Your task to perform on an android device: open app "Facebook Messenger" (install if not already installed) Image 0: 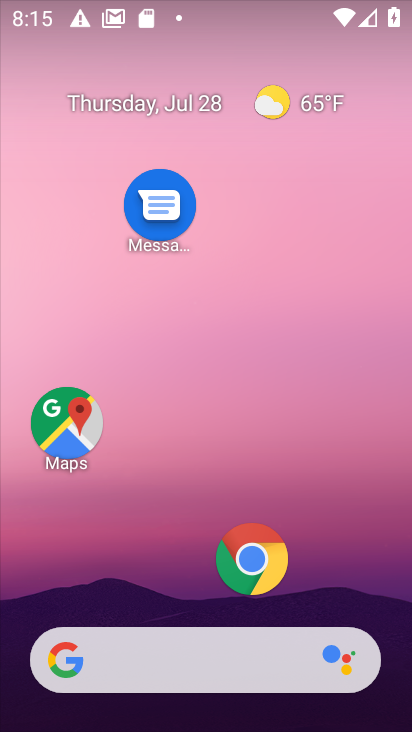
Step 0: drag from (162, 510) to (150, 280)
Your task to perform on an android device: open app "Facebook Messenger" (install if not already installed) Image 1: 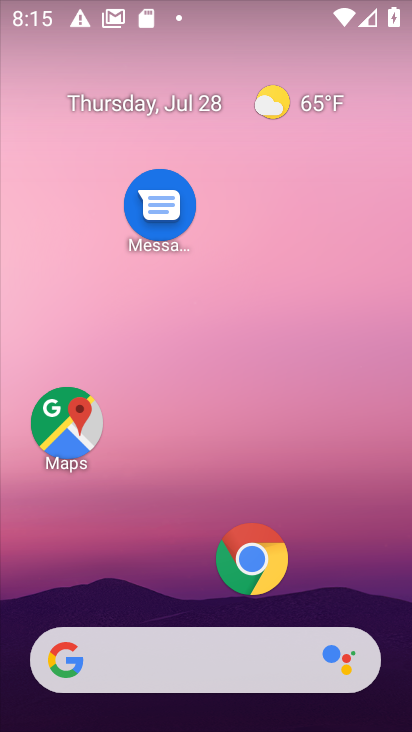
Step 1: drag from (161, 594) to (176, 178)
Your task to perform on an android device: open app "Facebook Messenger" (install if not already installed) Image 2: 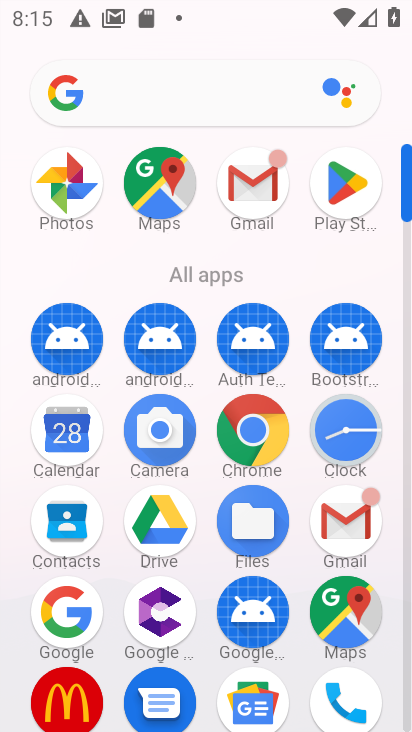
Step 2: drag from (193, 643) to (222, 343)
Your task to perform on an android device: open app "Facebook Messenger" (install if not already installed) Image 3: 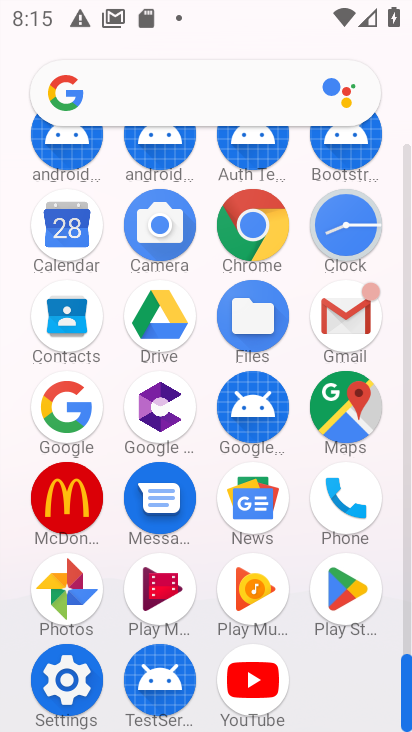
Step 3: click (340, 586)
Your task to perform on an android device: open app "Facebook Messenger" (install if not already installed) Image 4: 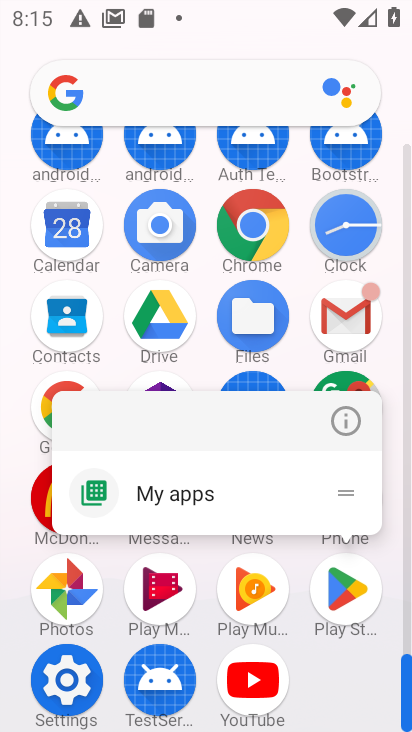
Step 4: click (342, 409)
Your task to perform on an android device: open app "Facebook Messenger" (install if not already installed) Image 5: 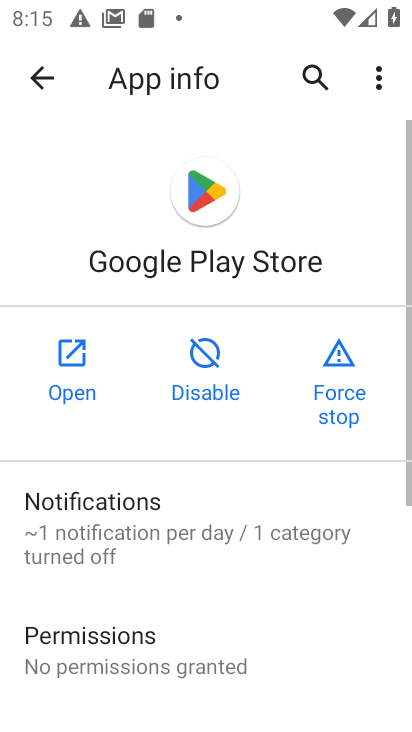
Step 5: click (70, 350)
Your task to perform on an android device: open app "Facebook Messenger" (install if not already installed) Image 6: 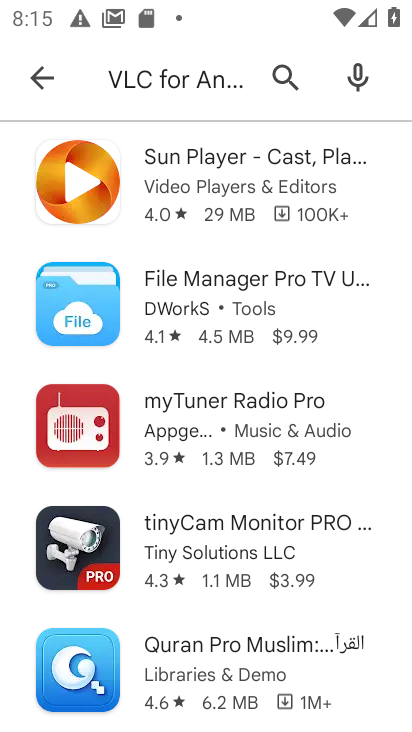
Step 6: click (285, 78)
Your task to perform on an android device: open app "Facebook Messenger" (install if not already installed) Image 7: 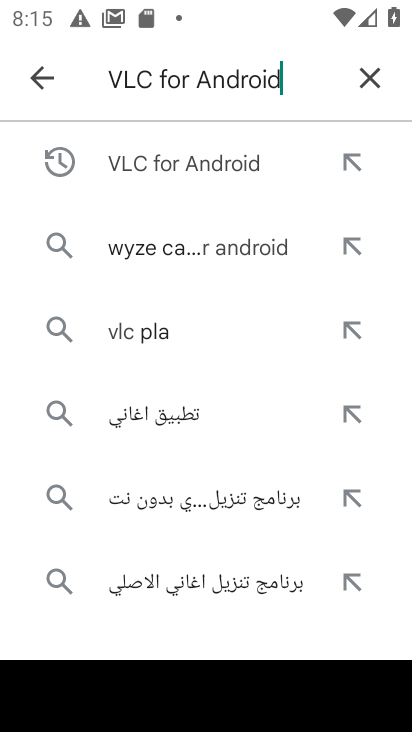
Step 7: click (375, 78)
Your task to perform on an android device: open app "Facebook Messenger" (install if not already installed) Image 8: 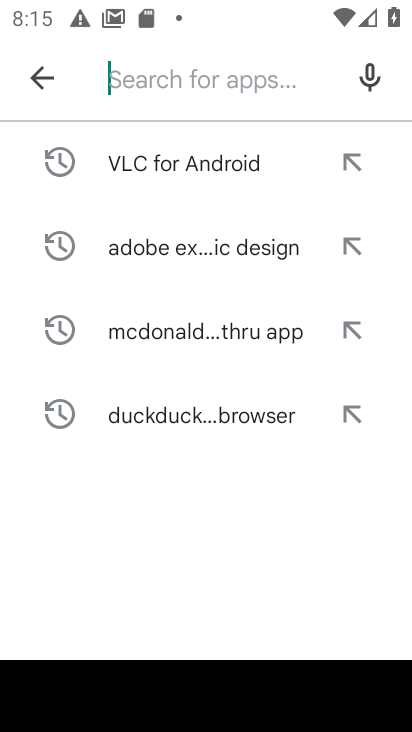
Step 8: type "Facebook Messenger"
Your task to perform on an android device: open app "Facebook Messenger" (install if not already installed) Image 9: 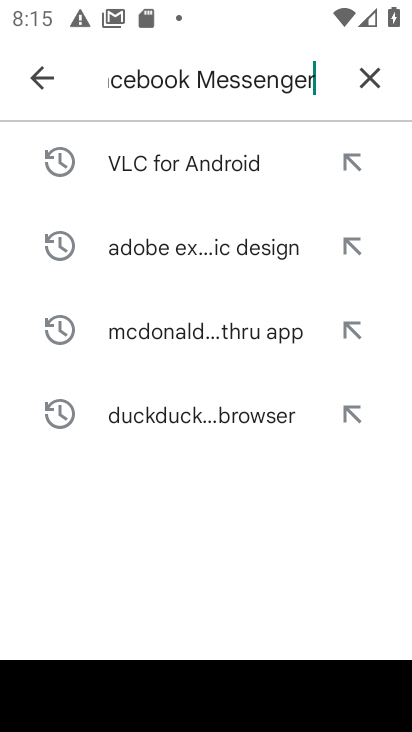
Step 9: type ""
Your task to perform on an android device: open app "Facebook Messenger" (install if not already installed) Image 10: 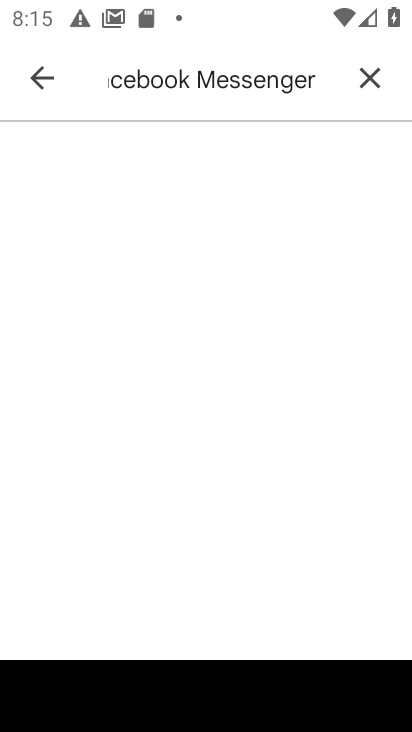
Step 10: click (148, 158)
Your task to perform on an android device: open app "Facebook Messenger" (install if not already installed) Image 11: 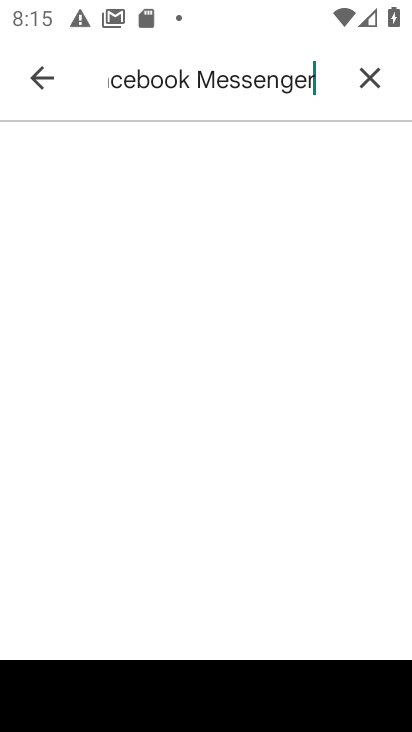
Step 11: click (151, 161)
Your task to perform on an android device: open app "Facebook Messenger" (install if not already installed) Image 12: 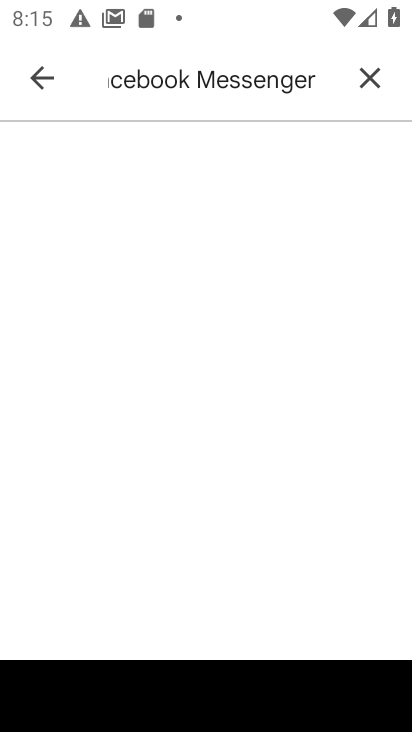
Step 12: click (151, 161)
Your task to perform on an android device: open app "Facebook Messenger" (install if not already installed) Image 13: 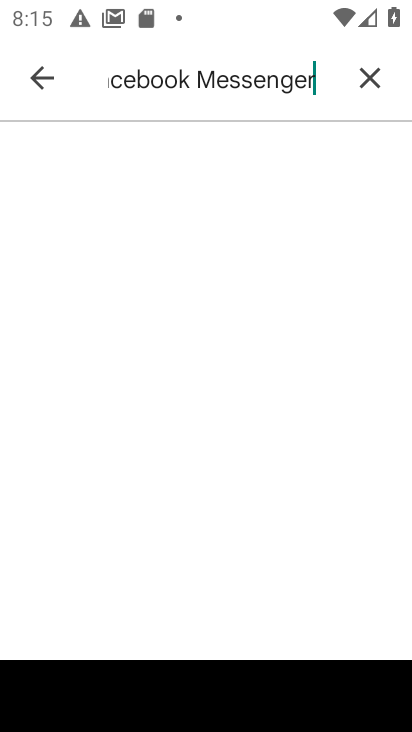
Step 13: task complete